Your task to perform on an android device: turn on sleep mode Image 0: 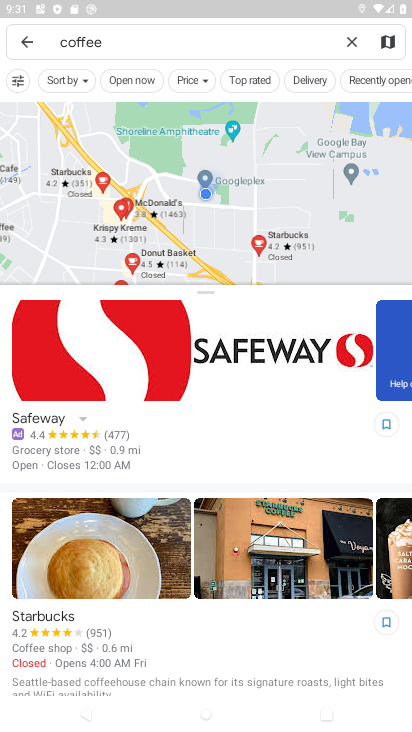
Step 0: press home button
Your task to perform on an android device: turn on sleep mode Image 1: 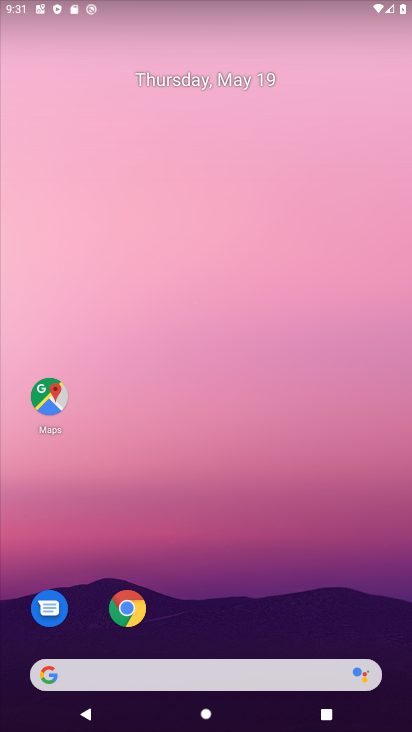
Step 1: drag from (194, 630) to (191, 207)
Your task to perform on an android device: turn on sleep mode Image 2: 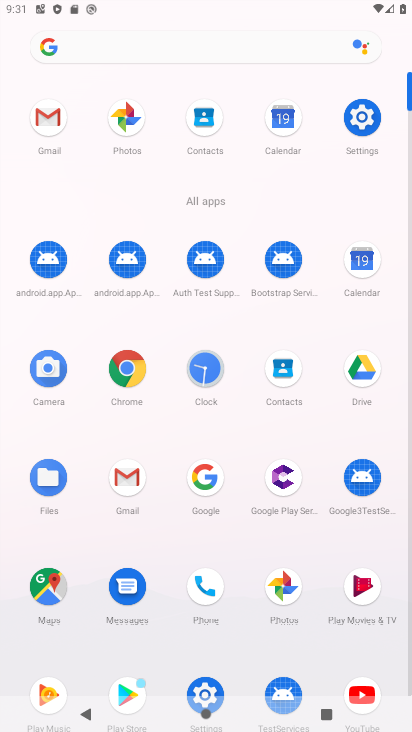
Step 2: click (371, 112)
Your task to perform on an android device: turn on sleep mode Image 3: 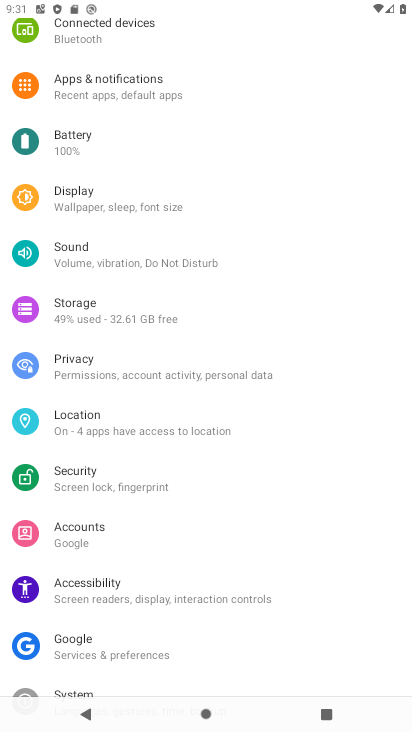
Step 3: click (130, 206)
Your task to perform on an android device: turn on sleep mode Image 4: 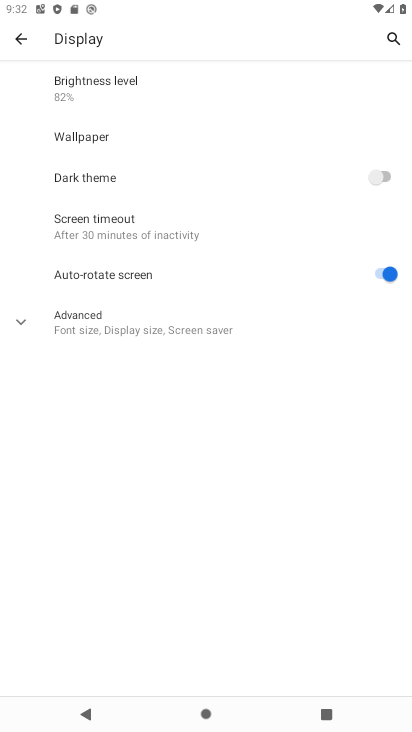
Step 4: task complete